Your task to perform on an android device: Go to ESPN.com Image 0: 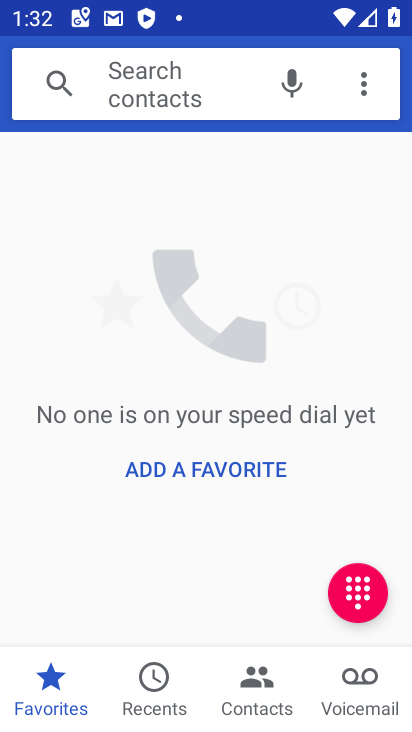
Step 0: press home button
Your task to perform on an android device: Go to ESPN.com Image 1: 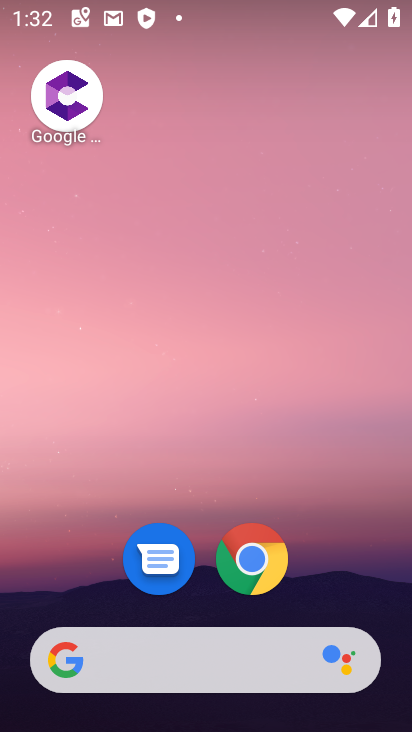
Step 1: drag from (292, 638) to (350, 24)
Your task to perform on an android device: Go to ESPN.com Image 2: 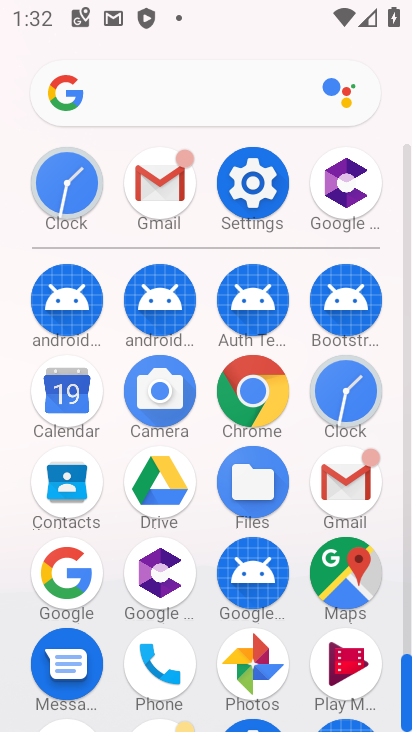
Step 2: click (265, 386)
Your task to perform on an android device: Go to ESPN.com Image 3: 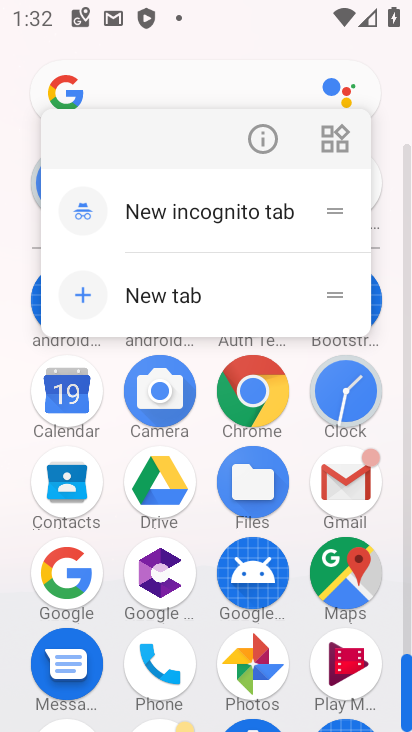
Step 3: click (263, 390)
Your task to perform on an android device: Go to ESPN.com Image 4: 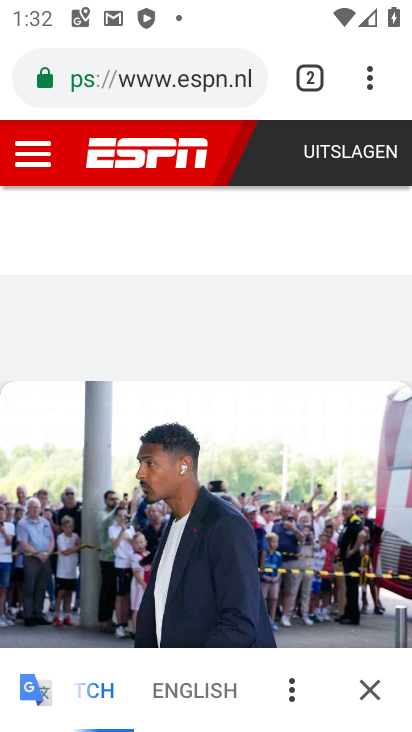
Step 4: task complete